Your task to perform on an android device: Go to Google maps Image 0: 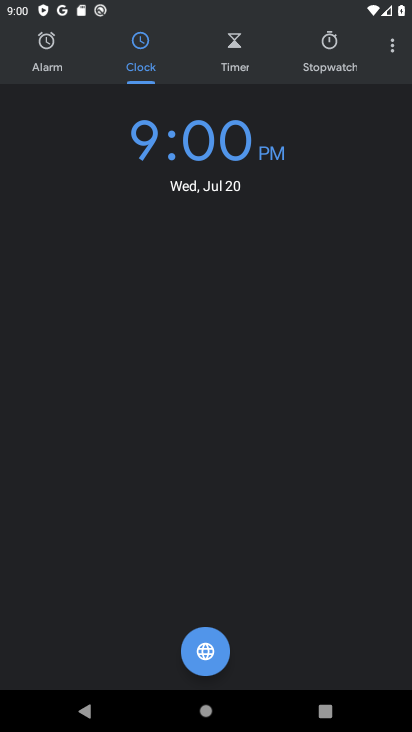
Step 0: press home button
Your task to perform on an android device: Go to Google maps Image 1: 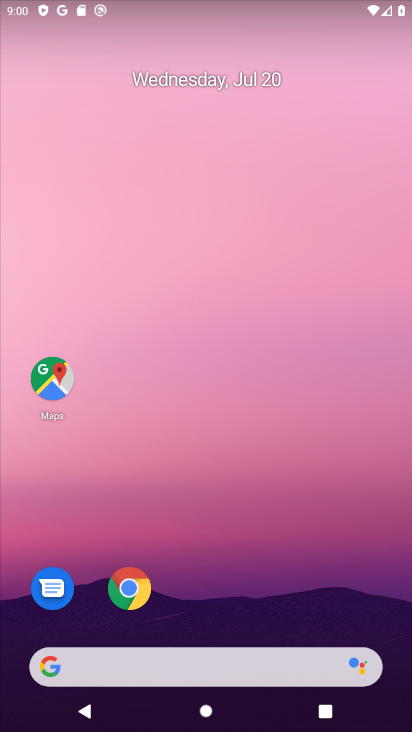
Step 1: drag from (302, 683) to (370, 80)
Your task to perform on an android device: Go to Google maps Image 2: 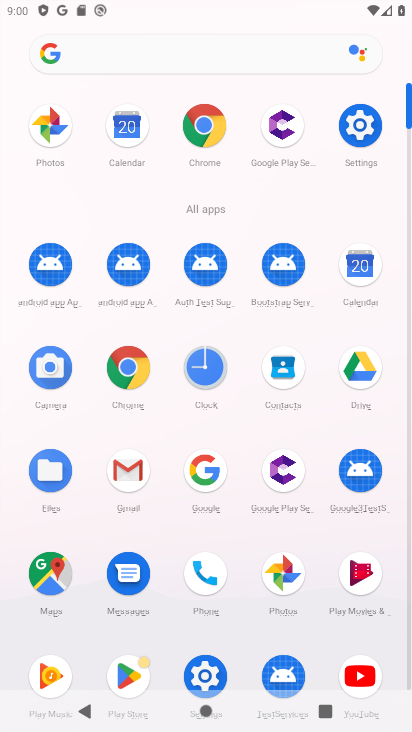
Step 2: click (53, 577)
Your task to perform on an android device: Go to Google maps Image 3: 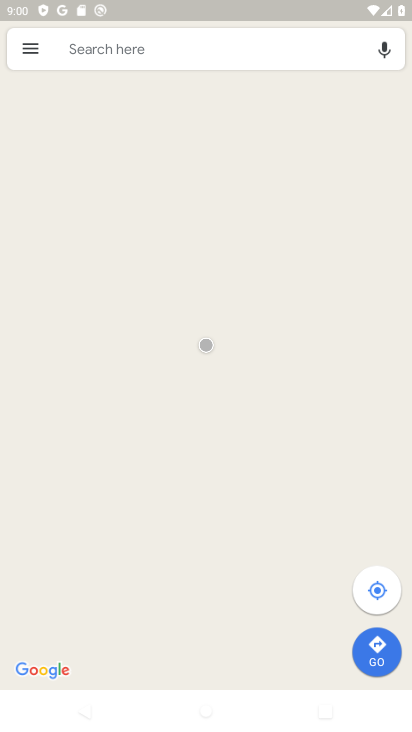
Step 3: task complete